Your task to perform on an android device: What's on my calendar today? Image 0: 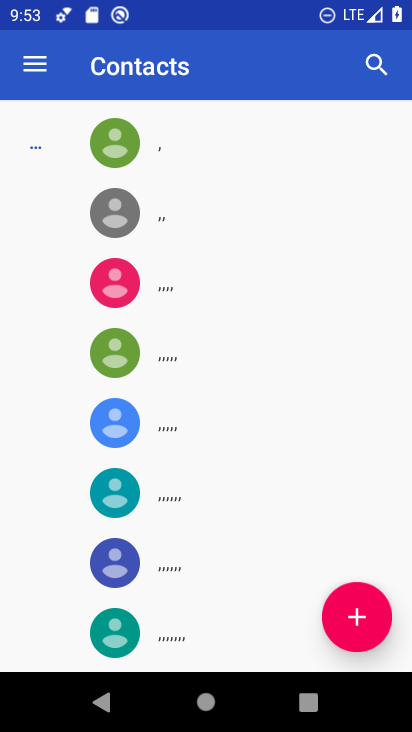
Step 0: press home button
Your task to perform on an android device: What's on my calendar today? Image 1: 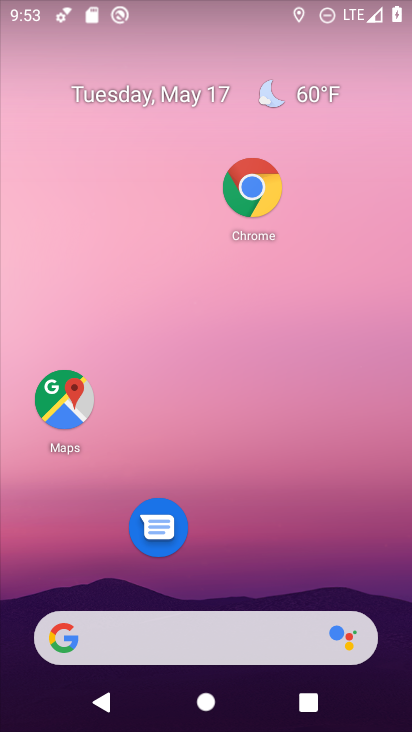
Step 1: drag from (287, 543) to (319, 157)
Your task to perform on an android device: What's on my calendar today? Image 2: 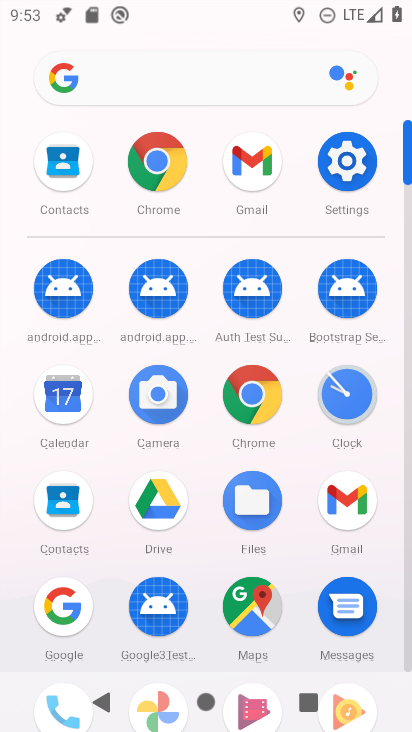
Step 2: click (78, 386)
Your task to perform on an android device: What's on my calendar today? Image 3: 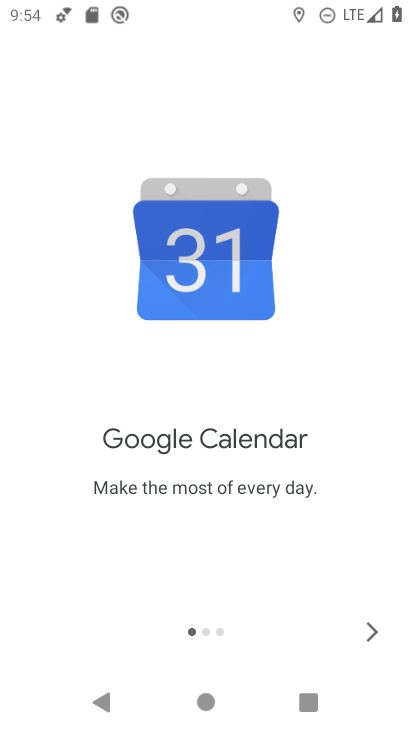
Step 3: click (373, 644)
Your task to perform on an android device: What's on my calendar today? Image 4: 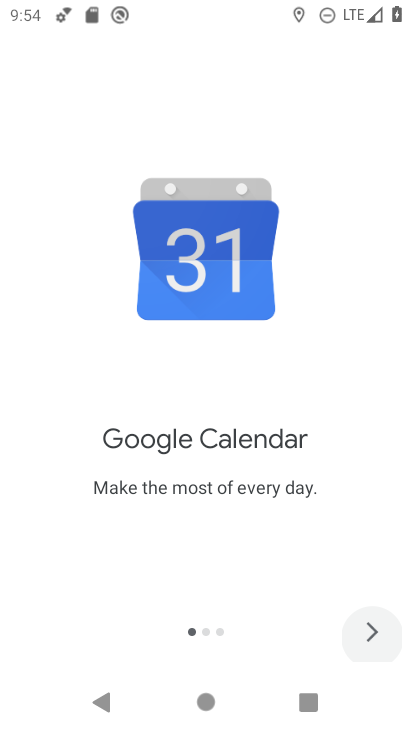
Step 4: click (373, 644)
Your task to perform on an android device: What's on my calendar today? Image 5: 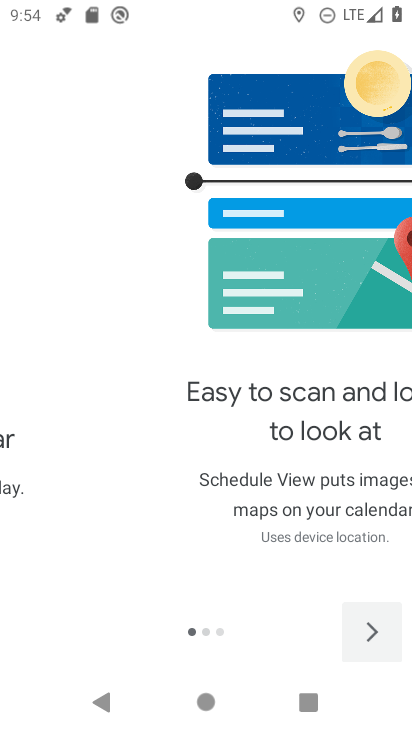
Step 5: click (373, 644)
Your task to perform on an android device: What's on my calendar today? Image 6: 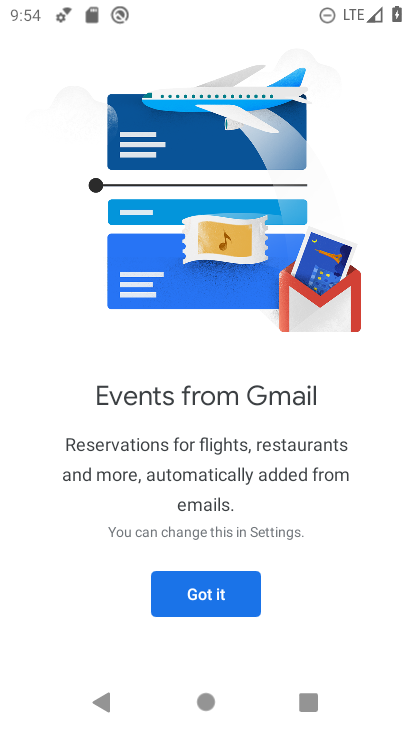
Step 6: click (234, 596)
Your task to perform on an android device: What's on my calendar today? Image 7: 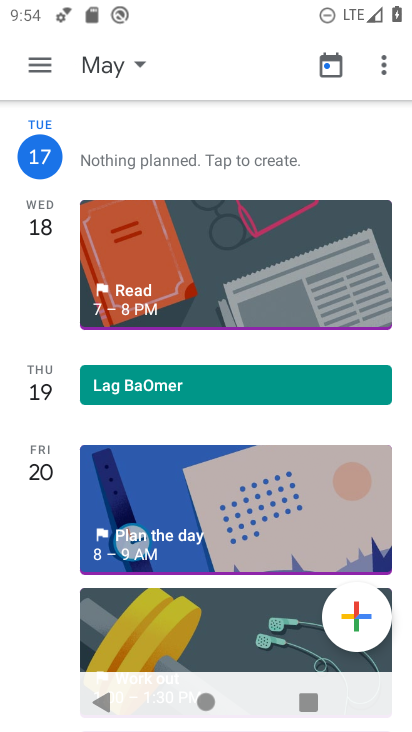
Step 7: task complete